Your task to perform on an android device: turn off translation in the chrome app Image 0: 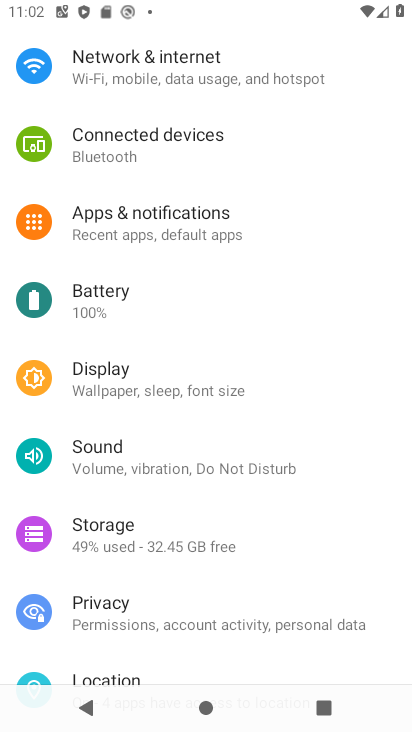
Step 0: press home button
Your task to perform on an android device: turn off translation in the chrome app Image 1: 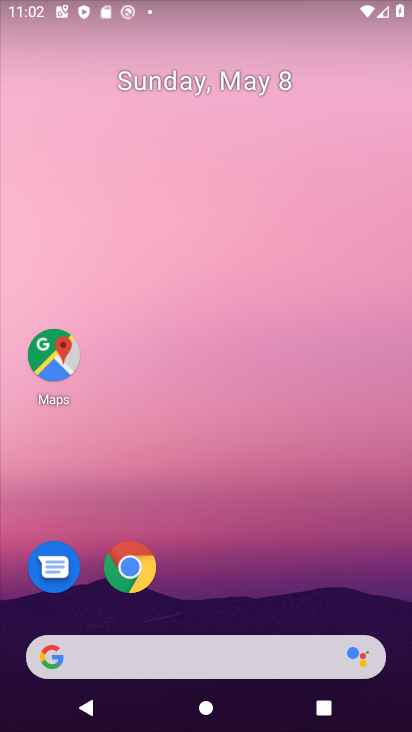
Step 1: drag from (217, 614) to (252, 380)
Your task to perform on an android device: turn off translation in the chrome app Image 2: 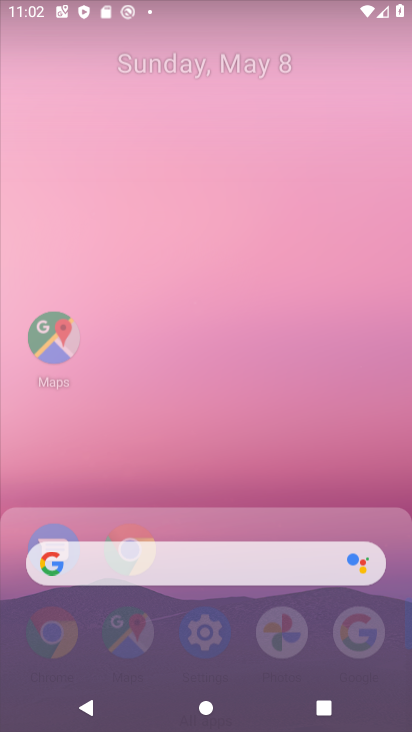
Step 2: click (290, 98)
Your task to perform on an android device: turn off translation in the chrome app Image 3: 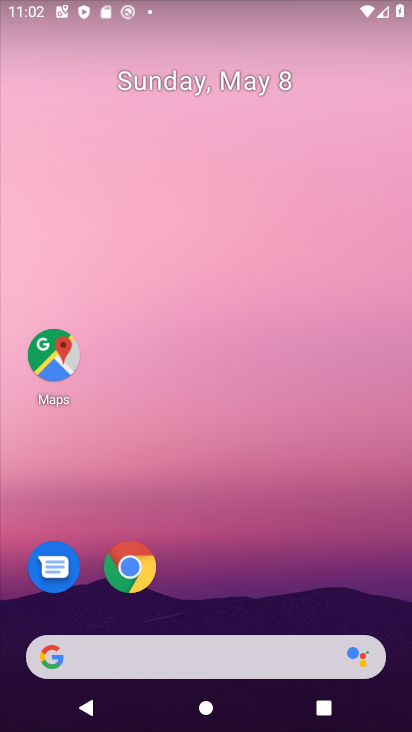
Step 3: drag from (228, 610) to (282, 58)
Your task to perform on an android device: turn off translation in the chrome app Image 4: 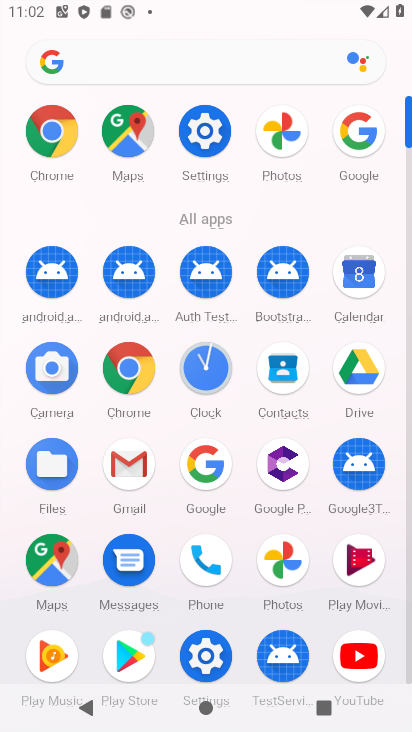
Step 4: click (128, 363)
Your task to perform on an android device: turn off translation in the chrome app Image 5: 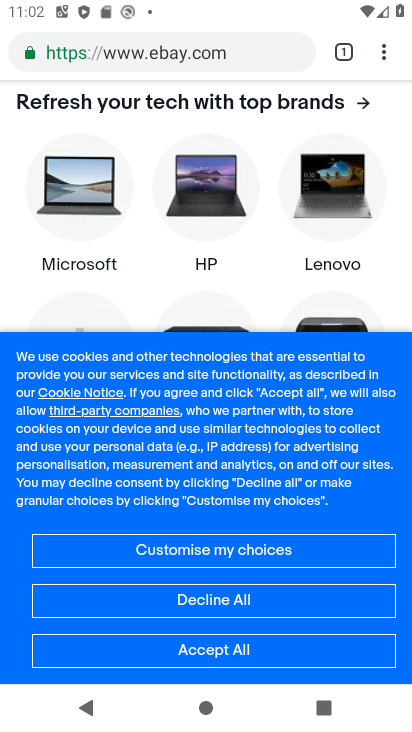
Step 5: click (382, 48)
Your task to perform on an android device: turn off translation in the chrome app Image 6: 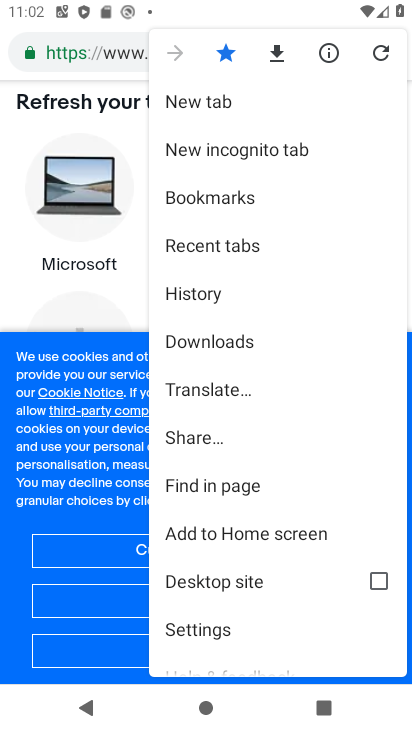
Step 6: click (241, 621)
Your task to perform on an android device: turn off translation in the chrome app Image 7: 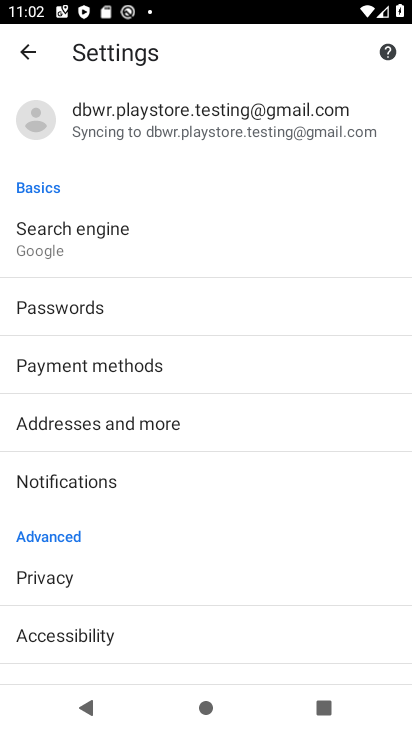
Step 7: drag from (160, 639) to (213, 207)
Your task to perform on an android device: turn off translation in the chrome app Image 8: 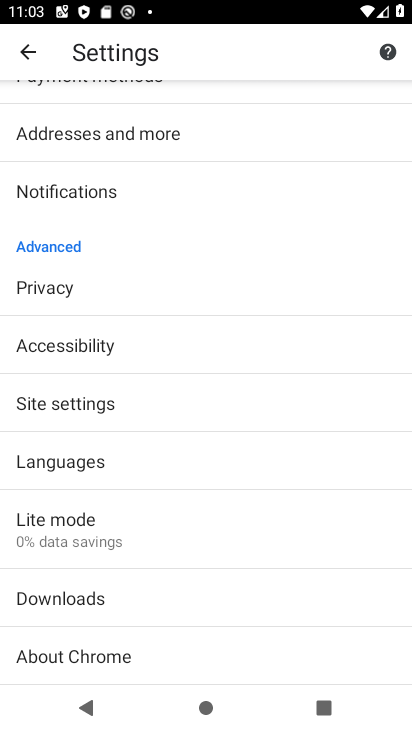
Step 8: click (131, 468)
Your task to perform on an android device: turn off translation in the chrome app Image 9: 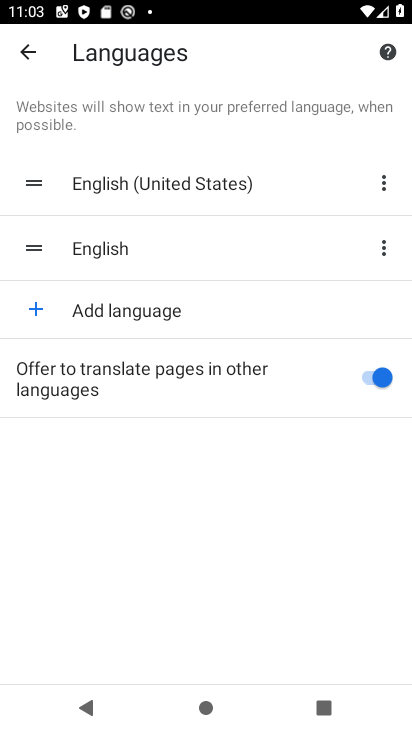
Step 9: click (375, 369)
Your task to perform on an android device: turn off translation in the chrome app Image 10: 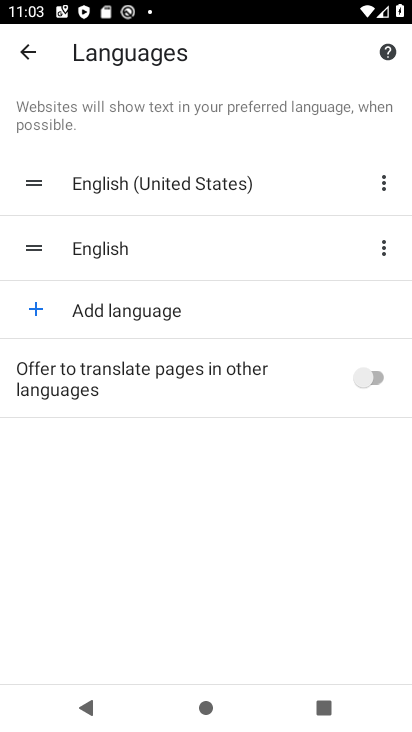
Step 10: task complete